Your task to perform on an android device: allow notifications from all sites in the chrome app Image 0: 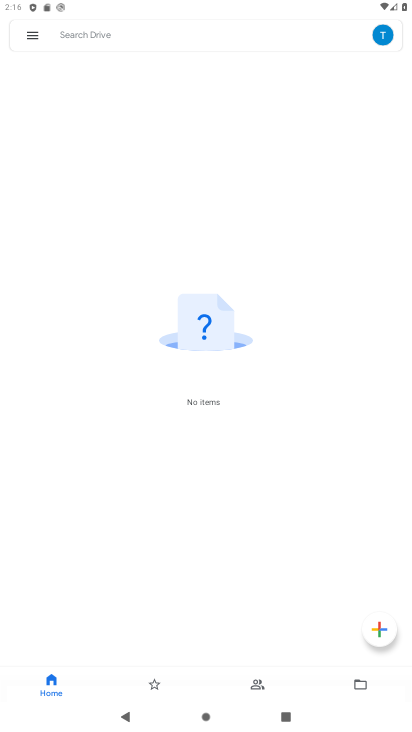
Step 0: press home button
Your task to perform on an android device: allow notifications from all sites in the chrome app Image 1: 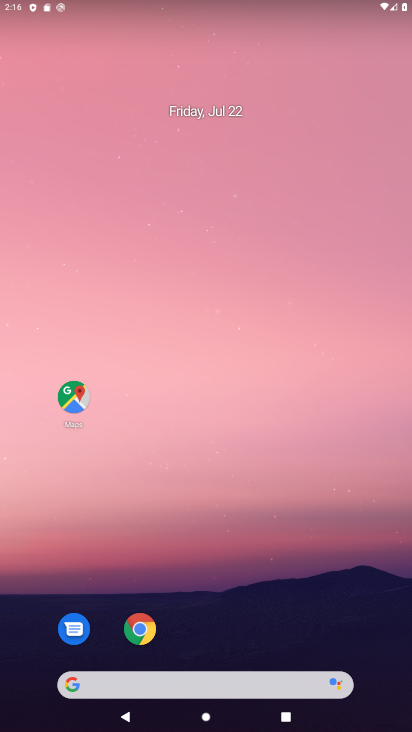
Step 1: drag from (195, 682) to (156, 179)
Your task to perform on an android device: allow notifications from all sites in the chrome app Image 2: 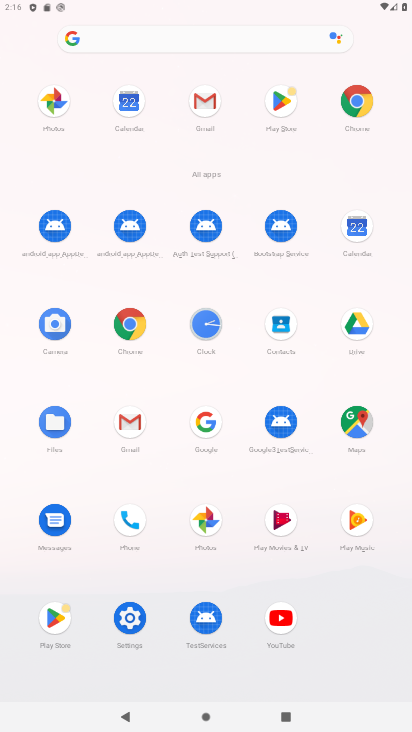
Step 2: click (121, 312)
Your task to perform on an android device: allow notifications from all sites in the chrome app Image 3: 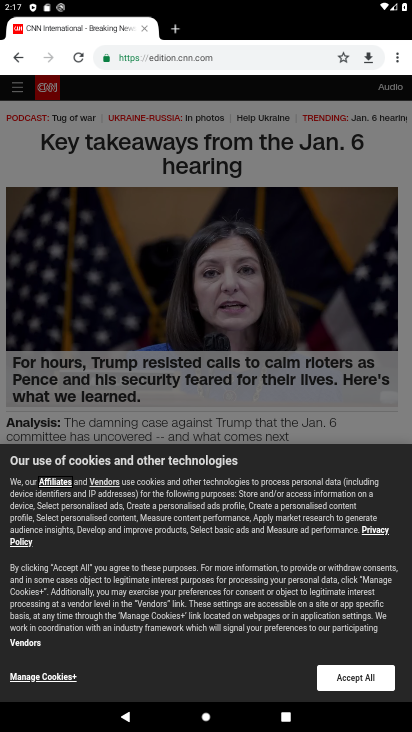
Step 3: drag from (400, 56) to (292, 355)
Your task to perform on an android device: allow notifications from all sites in the chrome app Image 4: 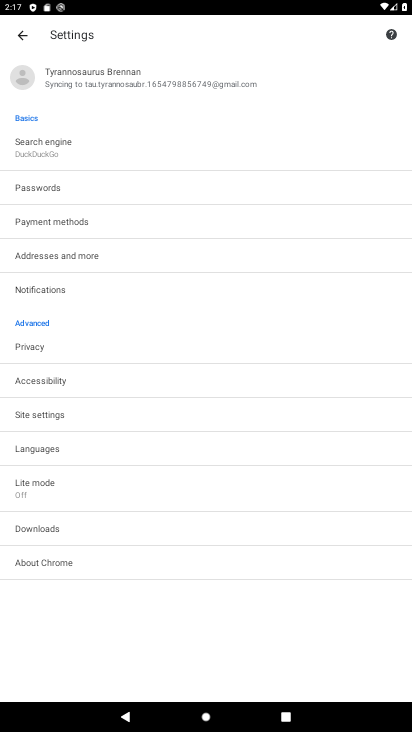
Step 4: click (60, 416)
Your task to perform on an android device: allow notifications from all sites in the chrome app Image 5: 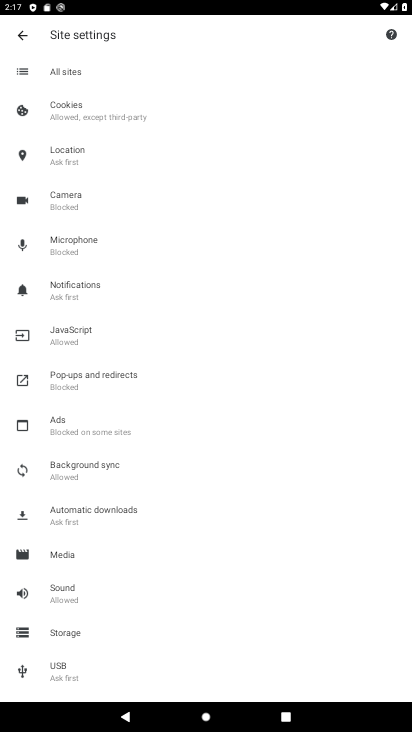
Step 5: click (89, 278)
Your task to perform on an android device: allow notifications from all sites in the chrome app Image 6: 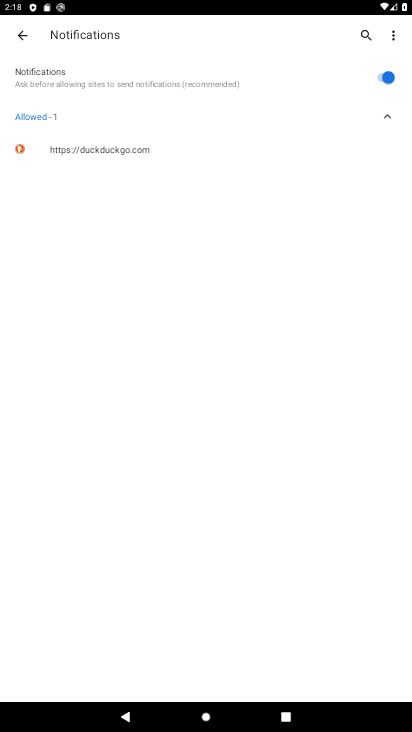
Step 6: task complete